Your task to perform on an android device: Show me recent news Image 0: 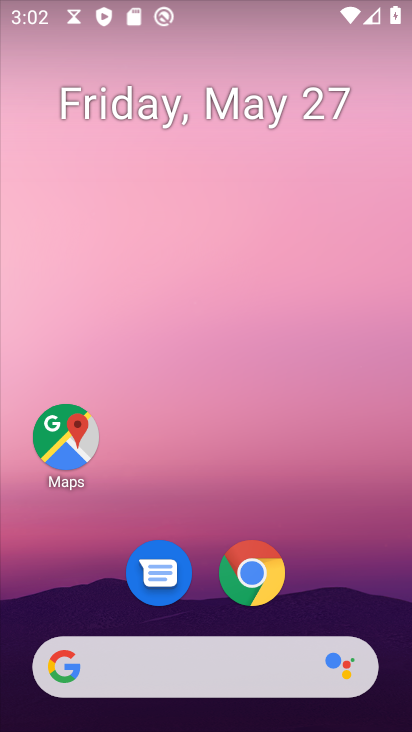
Step 0: click (216, 673)
Your task to perform on an android device: Show me recent news Image 1: 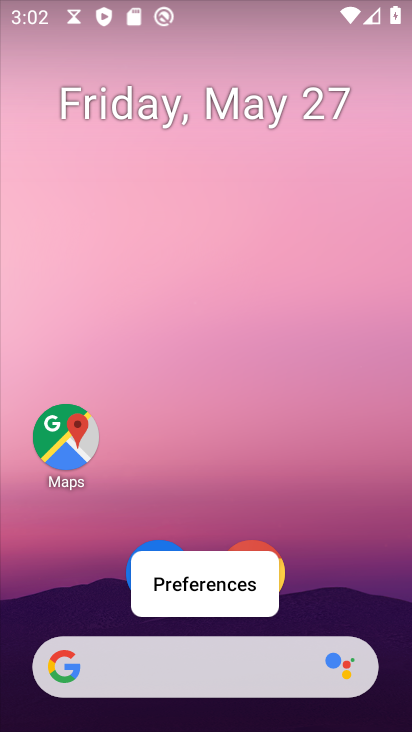
Step 1: click (173, 673)
Your task to perform on an android device: Show me recent news Image 2: 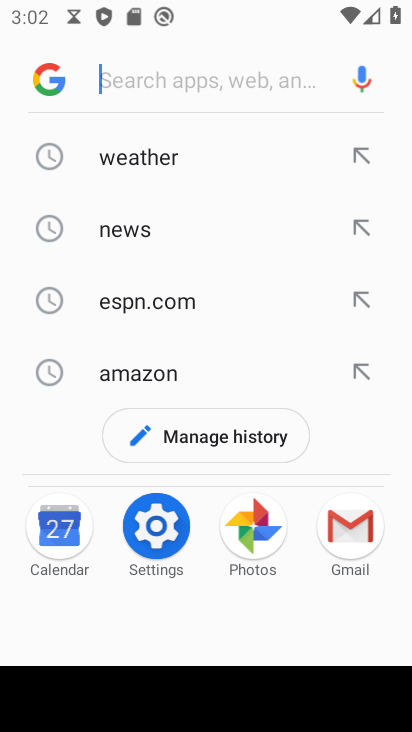
Step 2: type "recent news"
Your task to perform on an android device: Show me recent news Image 3: 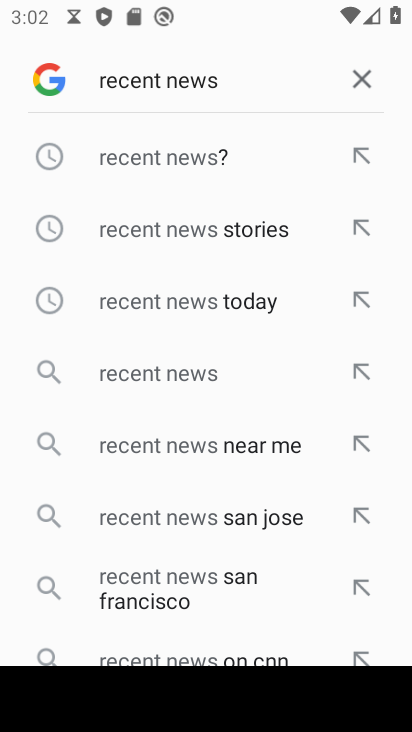
Step 3: click (174, 144)
Your task to perform on an android device: Show me recent news Image 4: 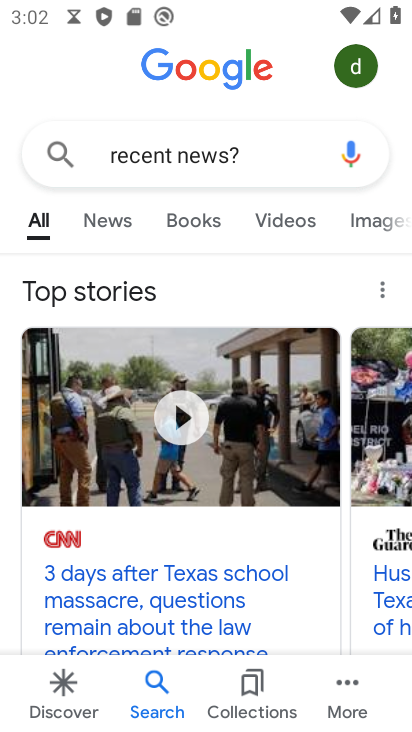
Step 4: click (132, 216)
Your task to perform on an android device: Show me recent news Image 5: 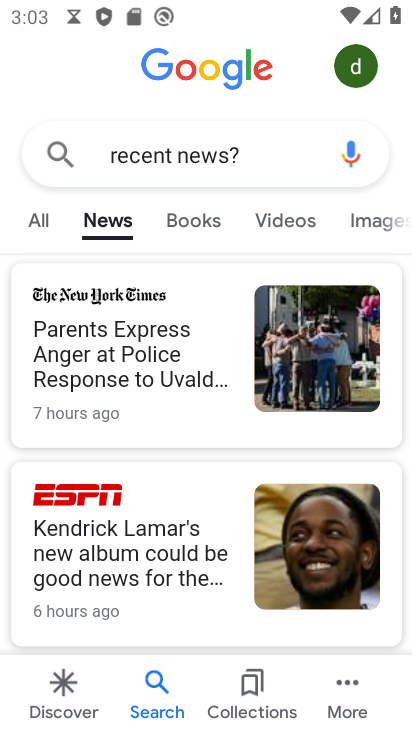
Step 5: task complete